Your task to perform on an android device: turn on improve location accuracy Image 0: 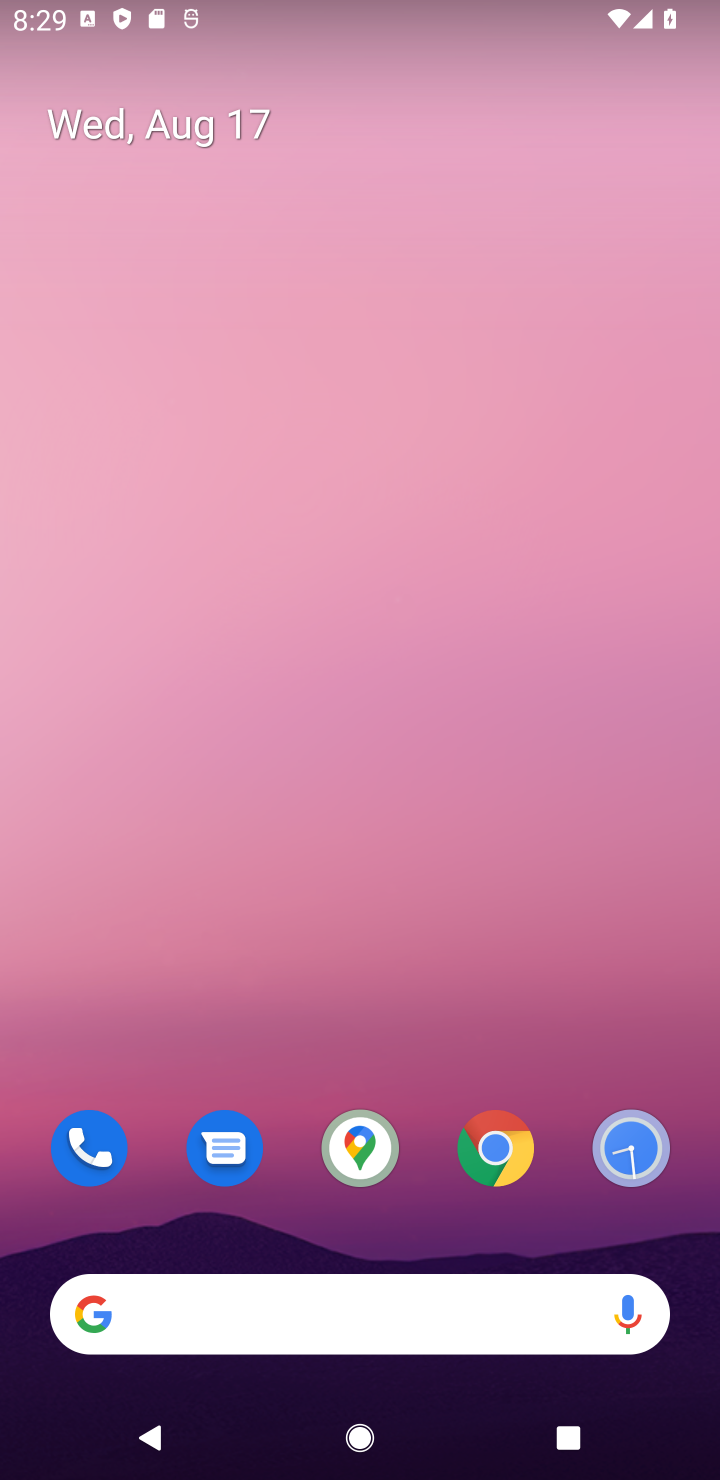
Step 0: drag from (580, 1244) to (533, 226)
Your task to perform on an android device: turn on improve location accuracy Image 1: 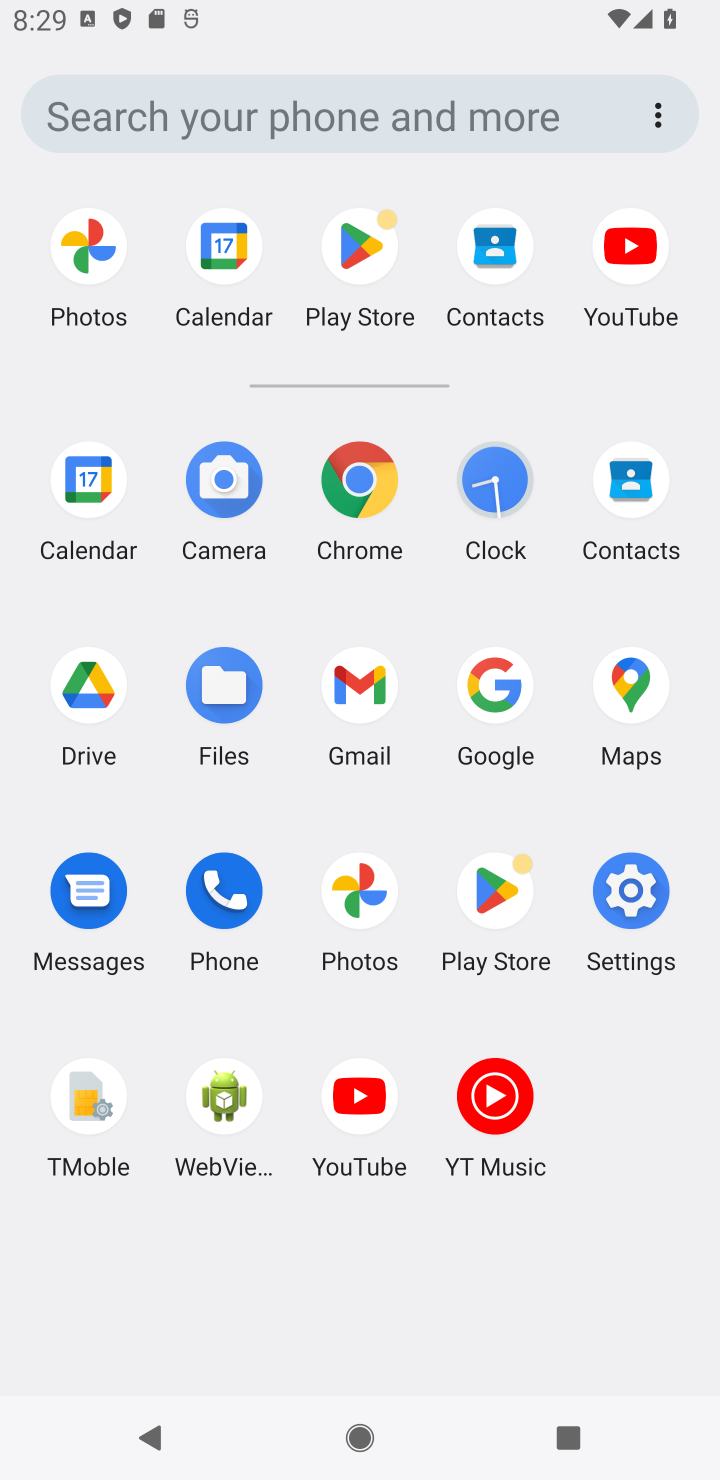
Step 1: click (628, 893)
Your task to perform on an android device: turn on improve location accuracy Image 2: 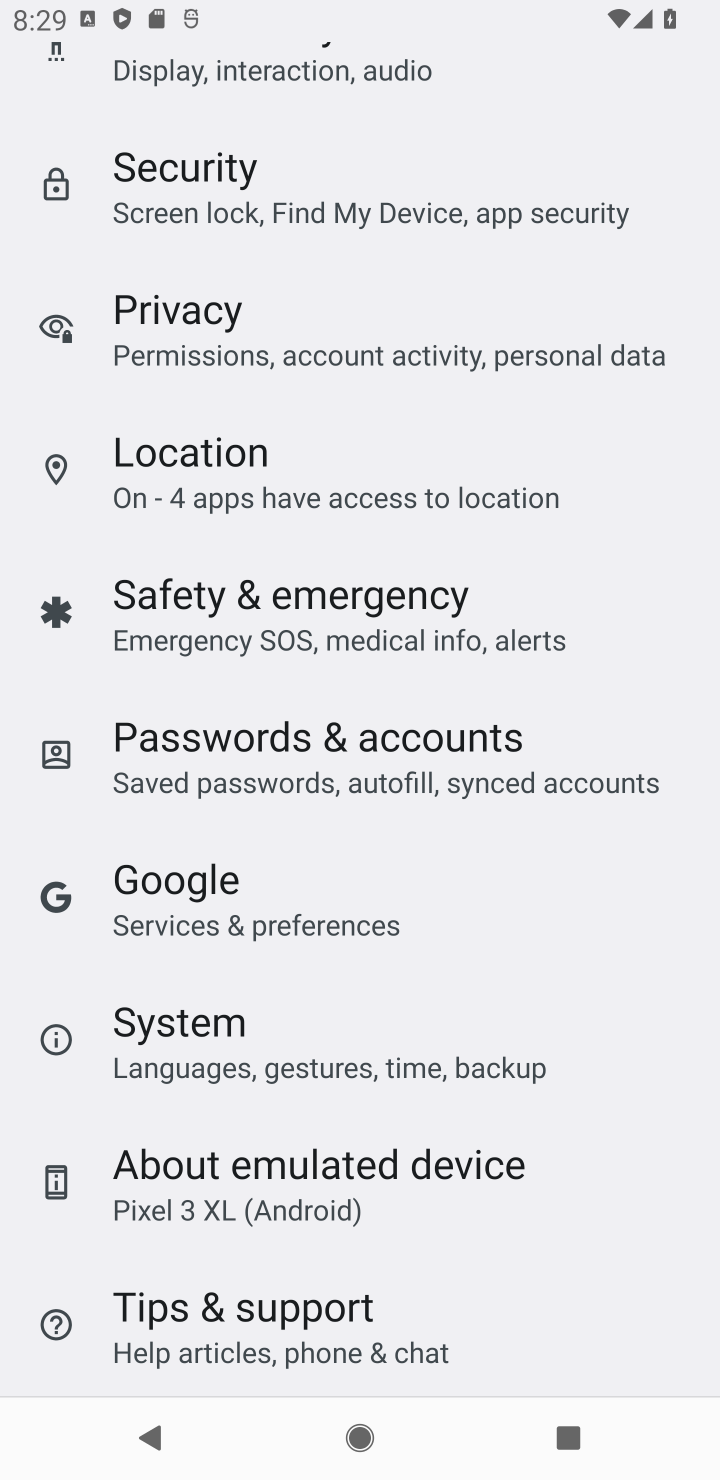
Step 2: click (212, 448)
Your task to perform on an android device: turn on improve location accuracy Image 3: 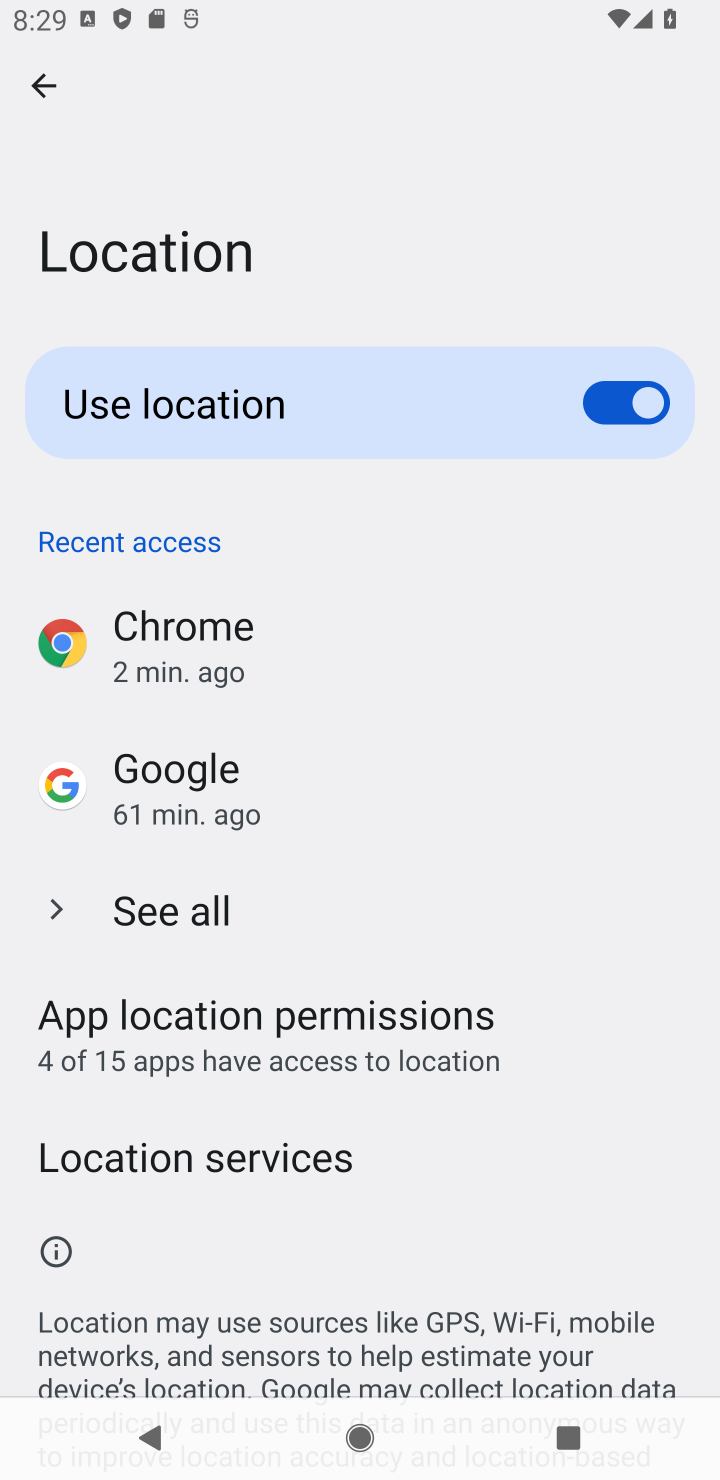
Step 3: click (198, 1159)
Your task to perform on an android device: turn on improve location accuracy Image 4: 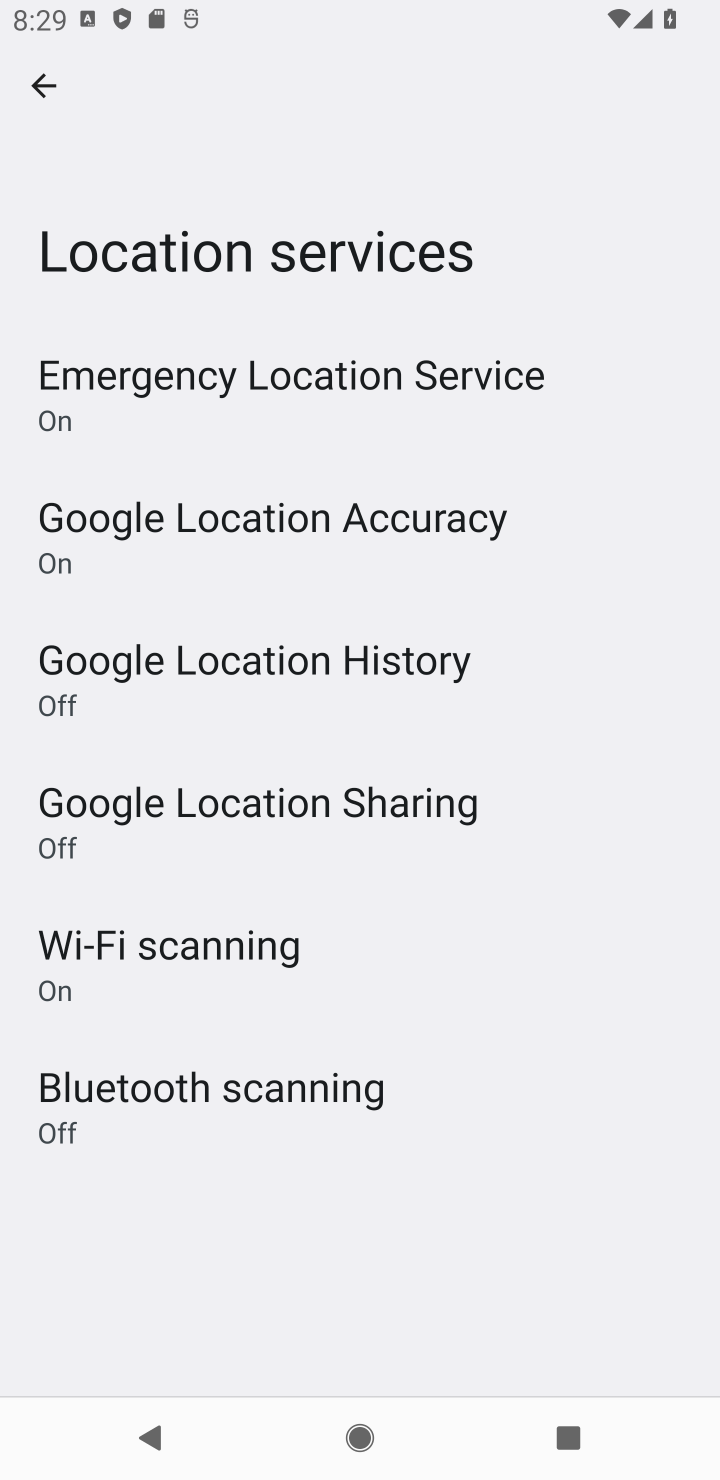
Step 4: click (280, 527)
Your task to perform on an android device: turn on improve location accuracy Image 5: 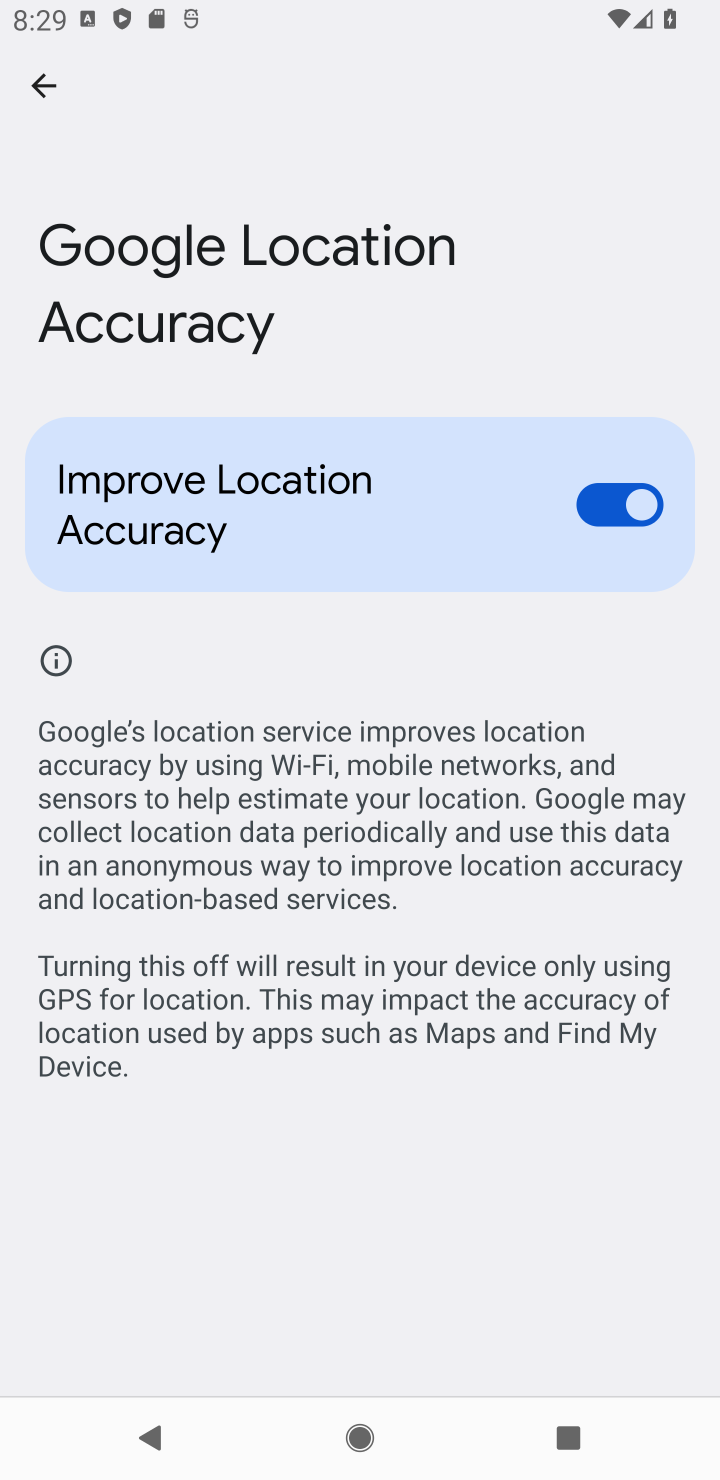
Step 5: task complete